Your task to perform on an android device: What's on my calendar today? Image 0: 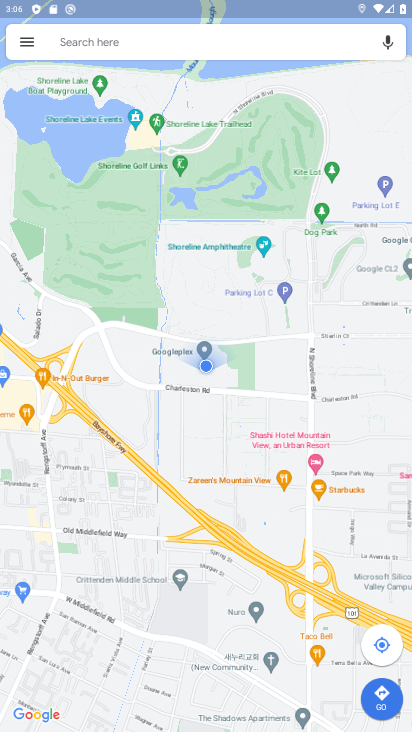
Step 0: press home button
Your task to perform on an android device: What's on my calendar today? Image 1: 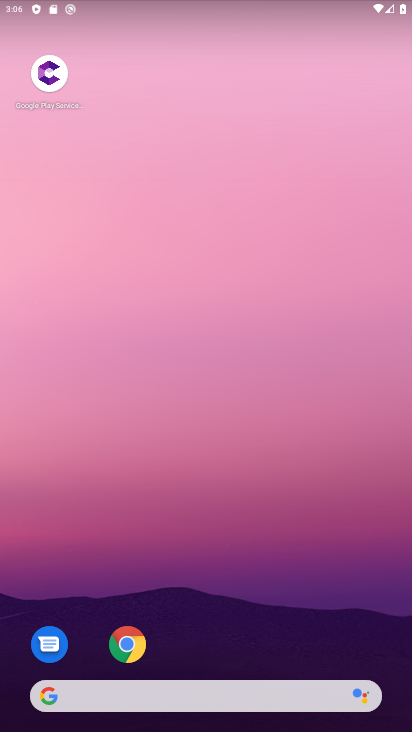
Step 1: drag from (302, 579) to (260, 127)
Your task to perform on an android device: What's on my calendar today? Image 2: 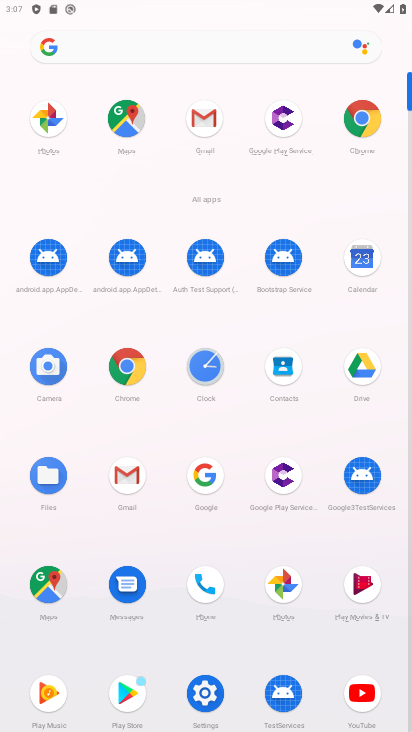
Step 2: click (281, 368)
Your task to perform on an android device: What's on my calendar today? Image 3: 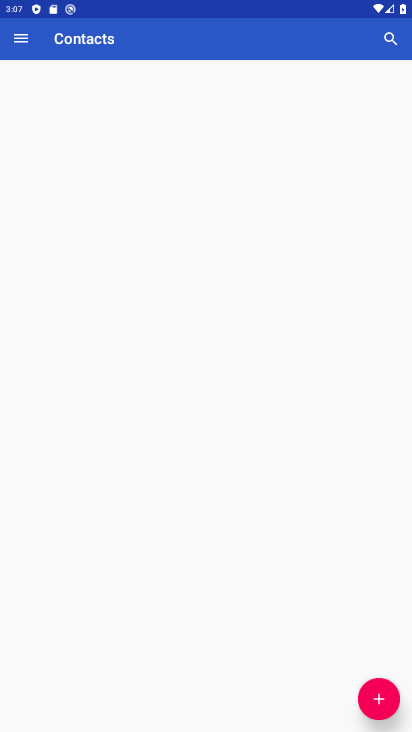
Step 3: press home button
Your task to perform on an android device: What's on my calendar today? Image 4: 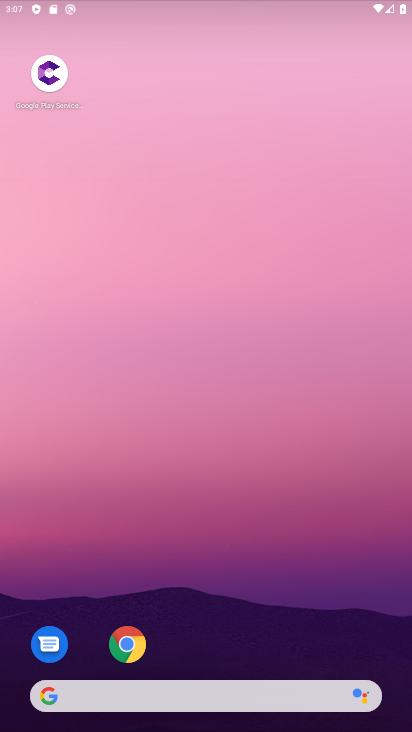
Step 4: drag from (282, 561) to (249, 36)
Your task to perform on an android device: What's on my calendar today? Image 5: 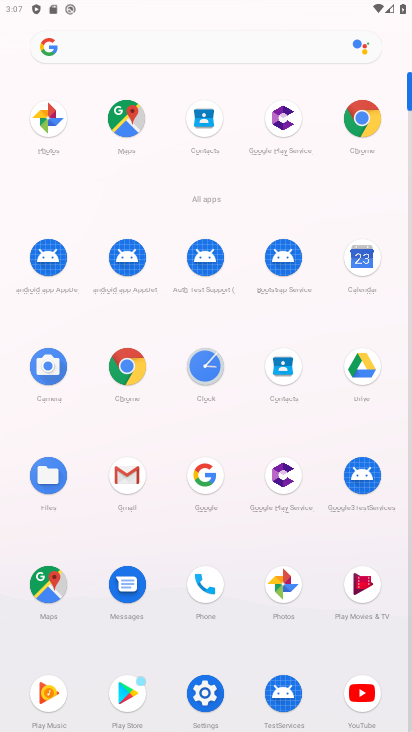
Step 5: click (365, 267)
Your task to perform on an android device: What's on my calendar today? Image 6: 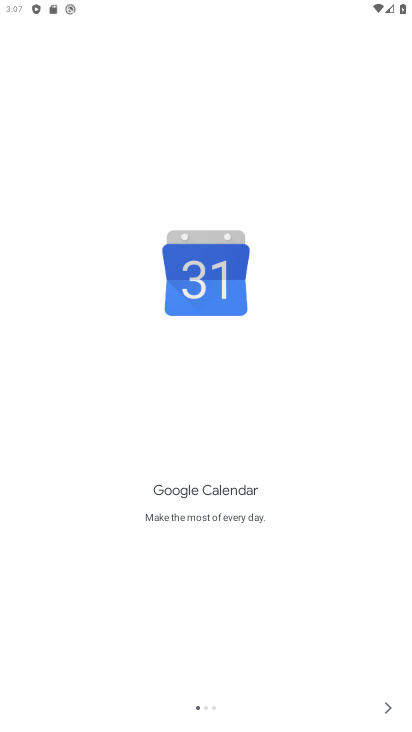
Step 6: click (382, 701)
Your task to perform on an android device: What's on my calendar today? Image 7: 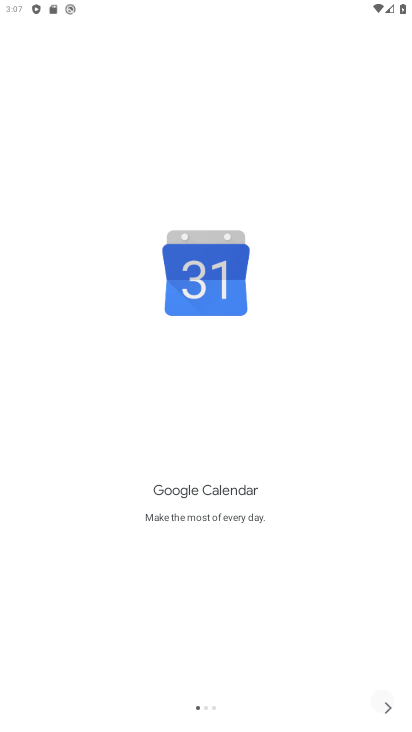
Step 7: click (382, 701)
Your task to perform on an android device: What's on my calendar today? Image 8: 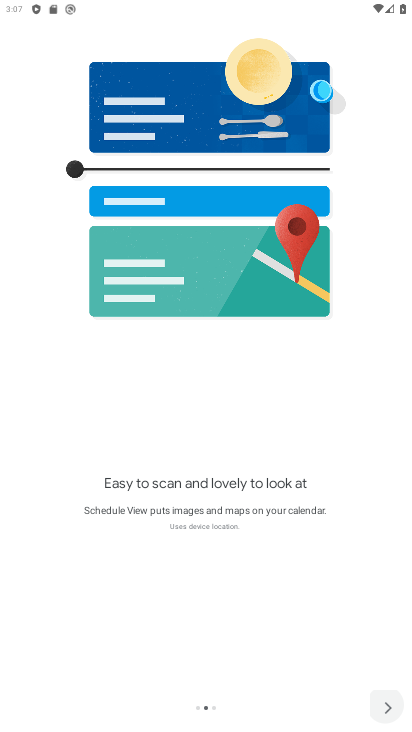
Step 8: click (382, 701)
Your task to perform on an android device: What's on my calendar today? Image 9: 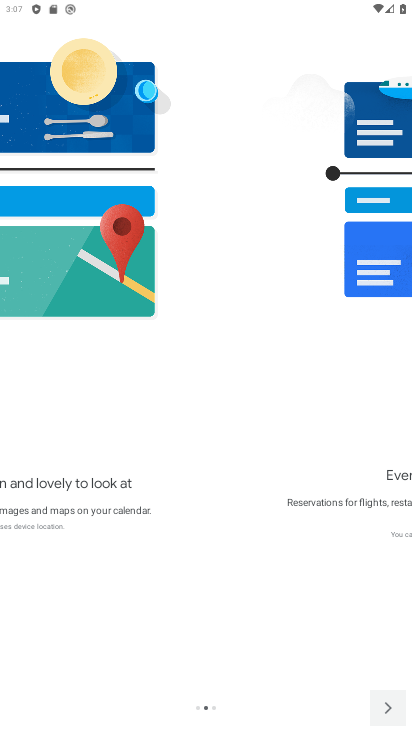
Step 9: click (382, 701)
Your task to perform on an android device: What's on my calendar today? Image 10: 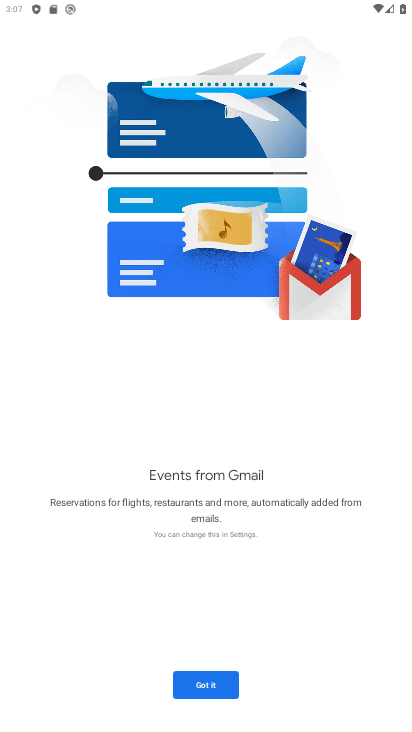
Step 10: click (382, 701)
Your task to perform on an android device: What's on my calendar today? Image 11: 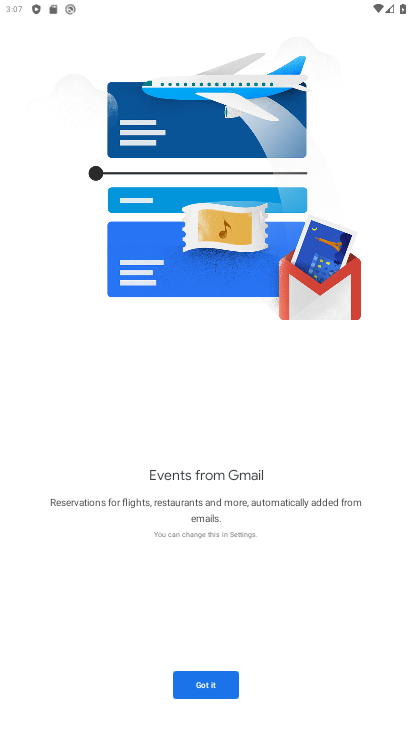
Step 11: click (382, 701)
Your task to perform on an android device: What's on my calendar today? Image 12: 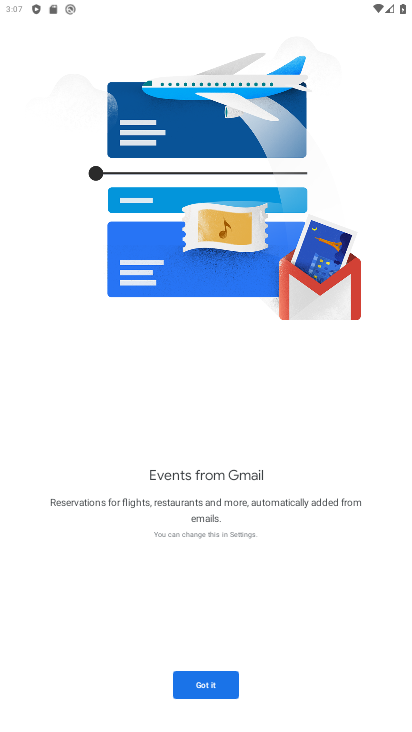
Step 12: click (223, 684)
Your task to perform on an android device: What's on my calendar today? Image 13: 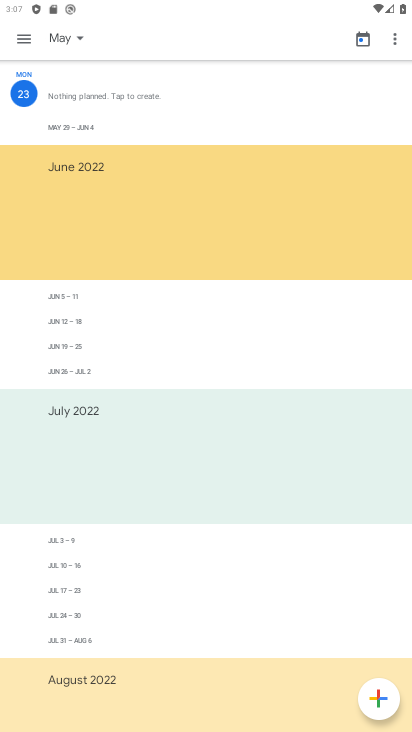
Step 13: click (61, 30)
Your task to perform on an android device: What's on my calendar today? Image 14: 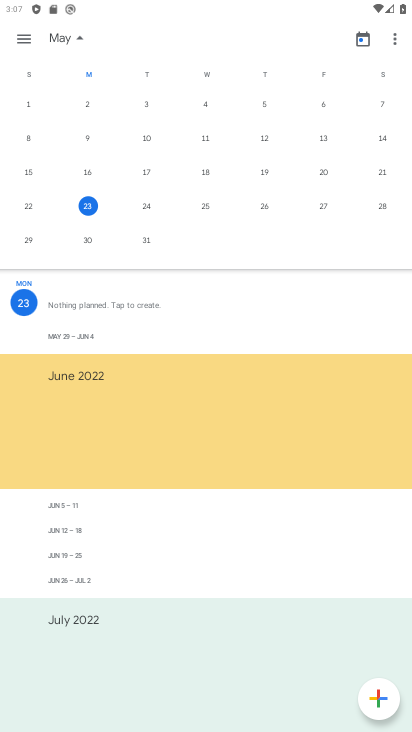
Step 14: drag from (391, 164) to (80, 148)
Your task to perform on an android device: What's on my calendar today? Image 15: 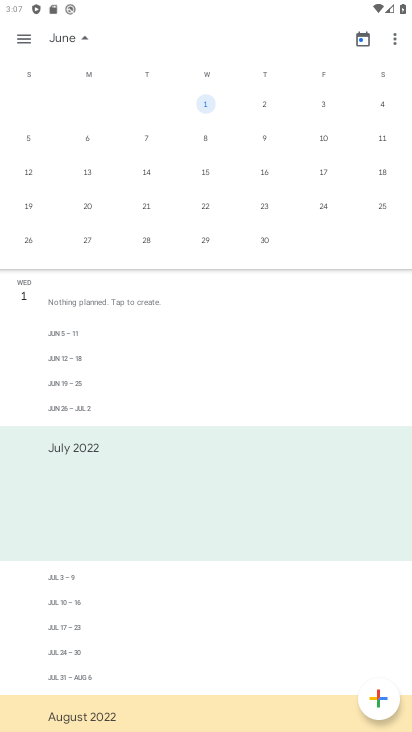
Step 15: drag from (64, 133) to (367, 176)
Your task to perform on an android device: What's on my calendar today? Image 16: 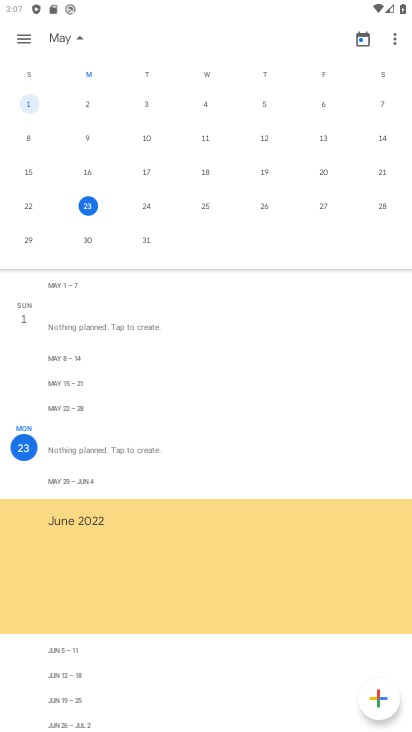
Step 16: click (90, 202)
Your task to perform on an android device: What's on my calendar today? Image 17: 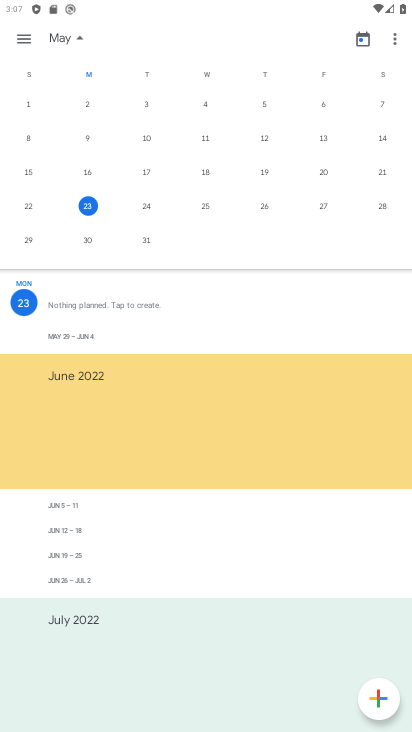
Step 17: click (90, 201)
Your task to perform on an android device: What's on my calendar today? Image 18: 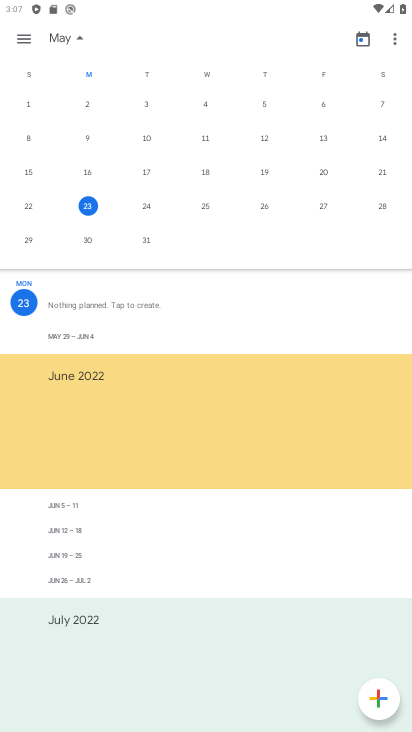
Step 18: task complete